Your task to perform on an android device: Open calendar and show me the fourth week of next month Image 0: 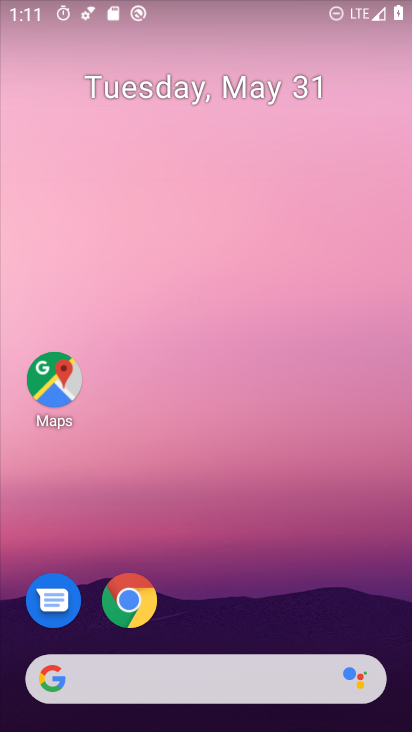
Step 0: click (246, 720)
Your task to perform on an android device: Open calendar and show me the fourth week of next month Image 1: 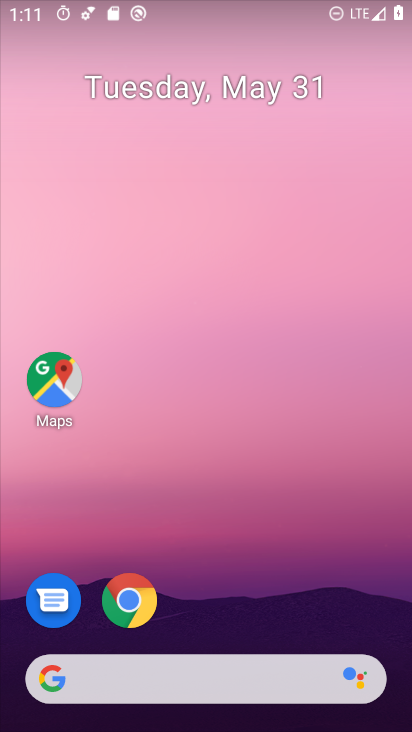
Step 1: drag from (215, 443) to (203, 126)
Your task to perform on an android device: Open calendar and show me the fourth week of next month Image 2: 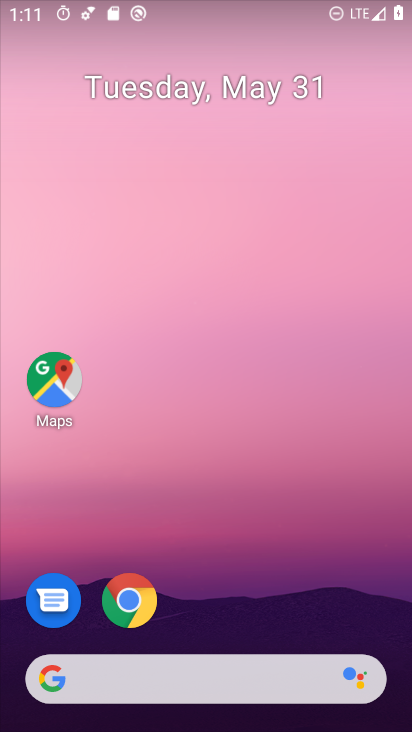
Step 2: drag from (190, 730) to (167, 144)
Your task to perform on an android device: Open calendar and show me the fourth week of next month Image 3: 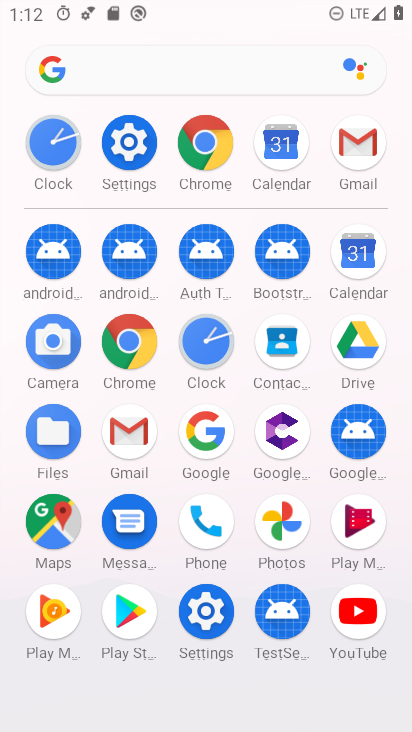
Step 3: click (361, 268)
Your task to perform on an android device: Open calendar and show me the fourth week of next month Image 4: 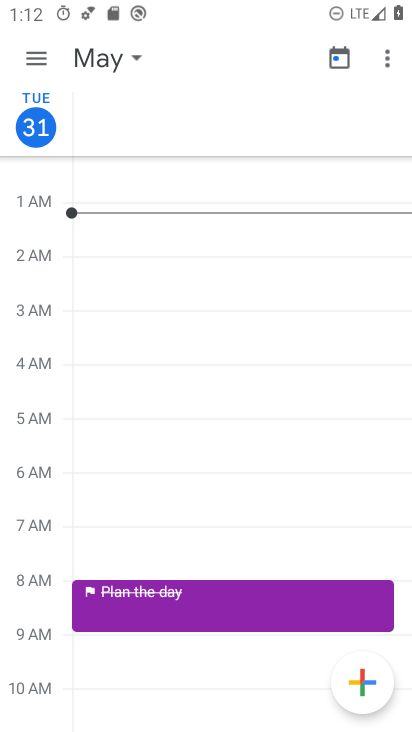
Step 4: click (113, 59)
Your task to perform on an android device: Open calendar and show me the fourth week of next month Image 5: 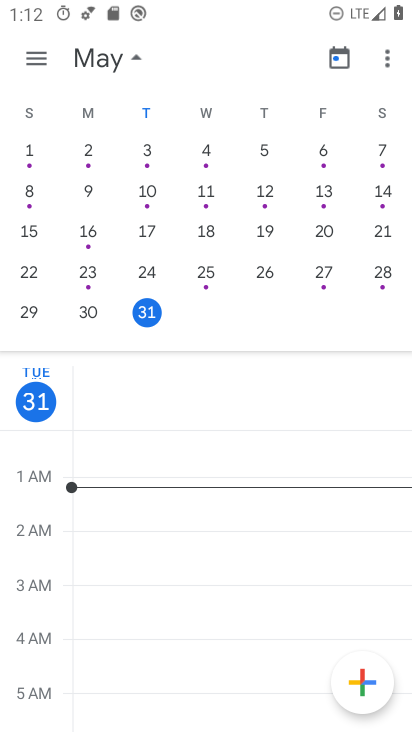
Step 5: drag from (323, 229) to (43, 219)
Your task to perform on an android device: Open calendar and show me the fourth week of next month Image 6: 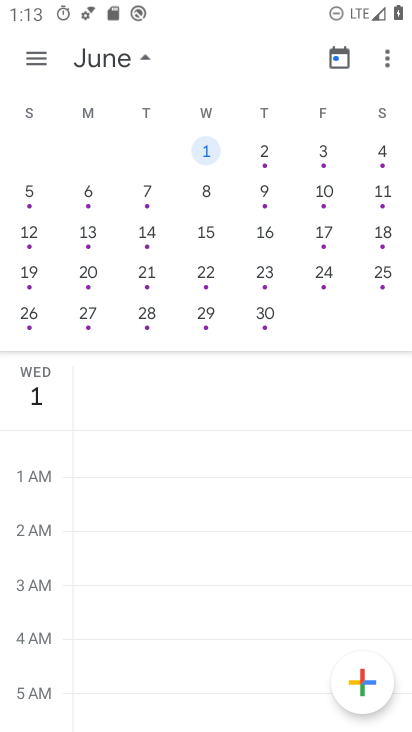
Step 6: click (85, 307)
Your task to perform on an android device: Open calendar and show me the fourth week of next month Image 7: 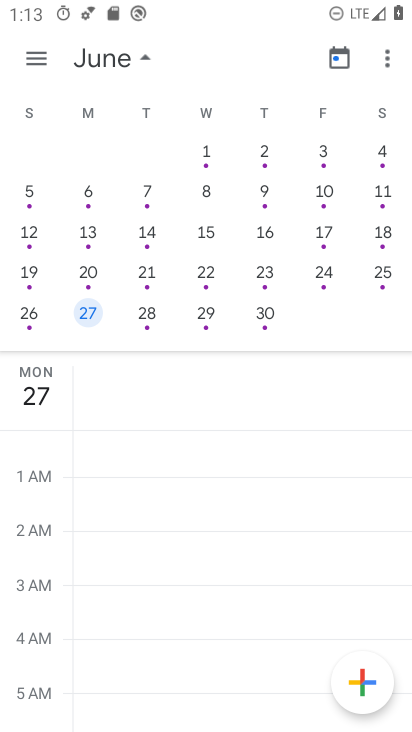
Step 7: click (32, 58)
Your task to perform on an android device: Open calendar and show me the fourth week of next month Image 8: 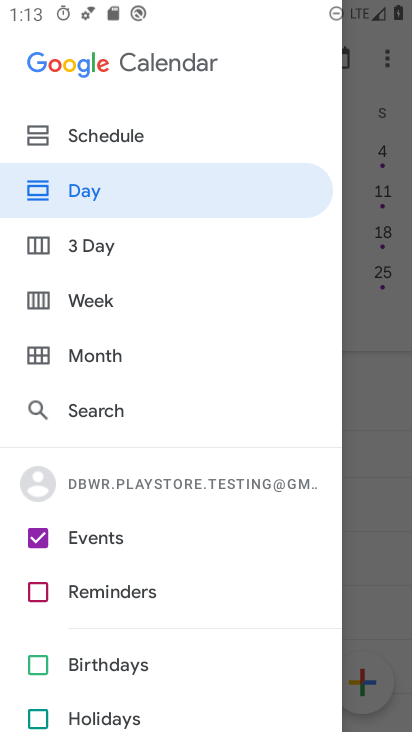
Step 8: click (85, 294)
Your task to perform on an android device: Open calendar and show me the fourth week of next month Image 9: 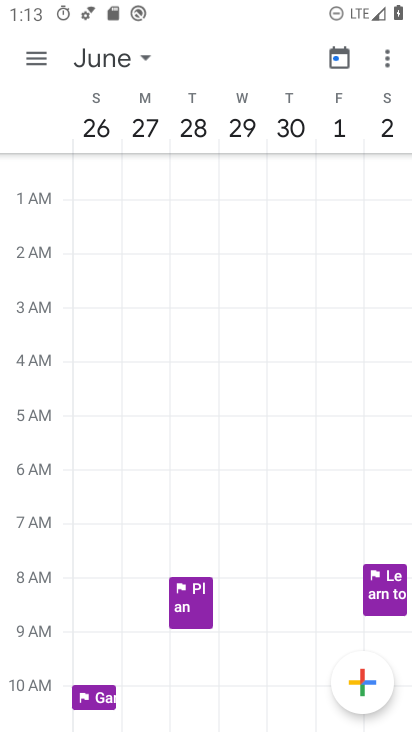
Step 9: task complete